Your task to perform on an android device: show emergency info Image 0: 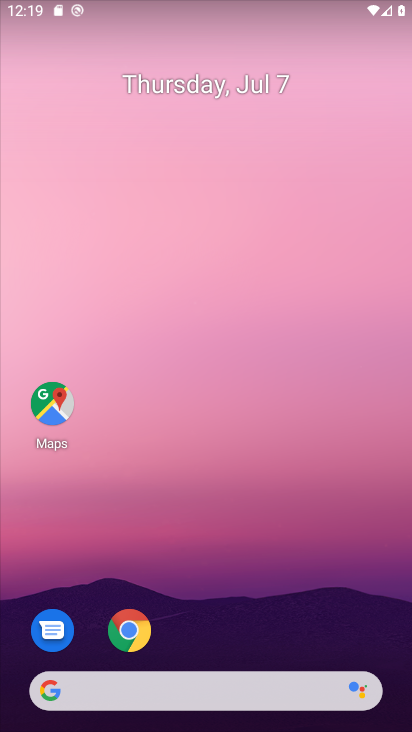
Step 0: drag from (254, 567) to (246, 279)
Your task to perform on an android device: show emergency info Image 1: 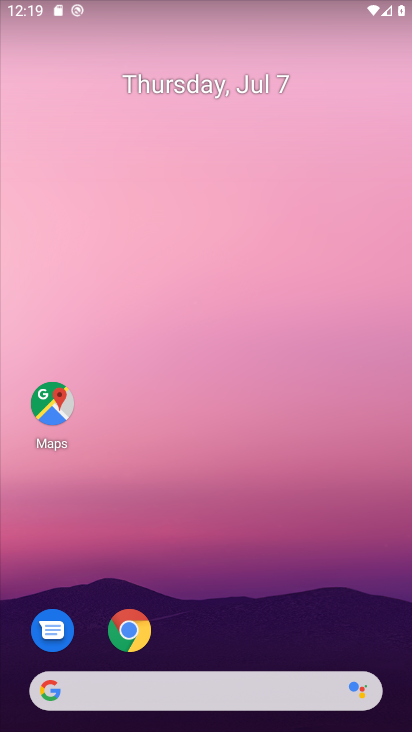
Step 1: drag from (236, 628) to (244, 255)
Your task to perform on an android device: show emergency info Image 2: 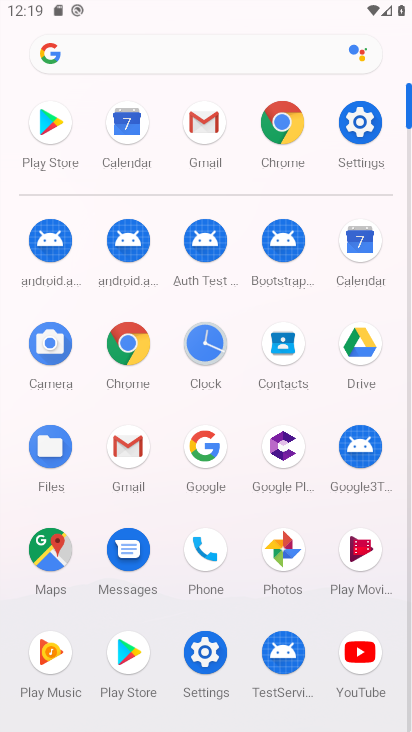
Step 2: click (350, 127)
Your task to perform on an android device: show emergency info Image 3: 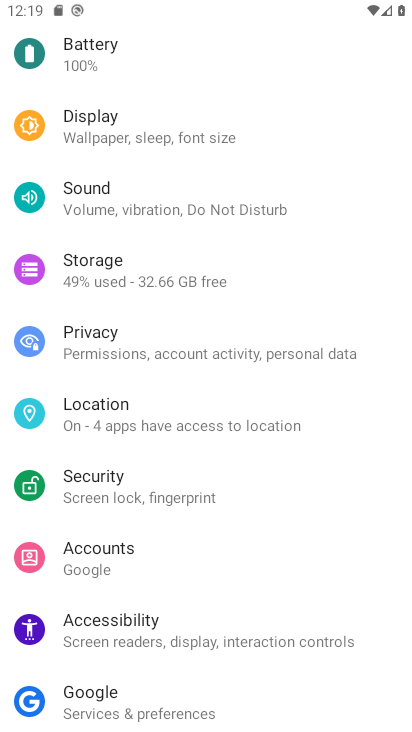
Step 3: drag from (201, 645) to (162, 220)
Your task to perform on an android device: show emergency info Image 4: 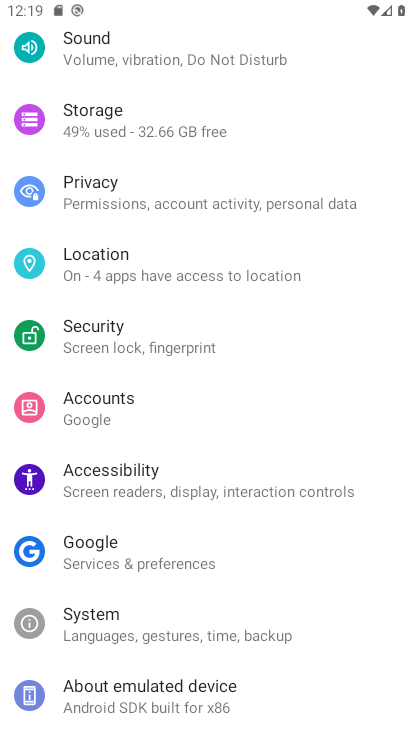
Step 4: click (161, 692)
Your task to perform on an android device: show emergency info Image 5: 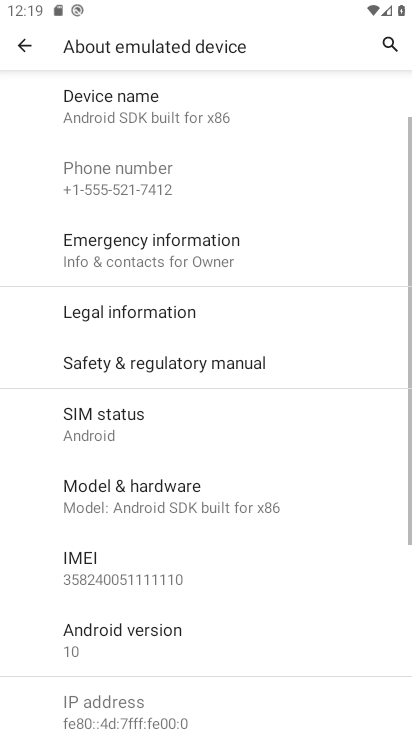
Step 5: click (166, 254)
Your task to perform on an android device: show emergency info Image 6: 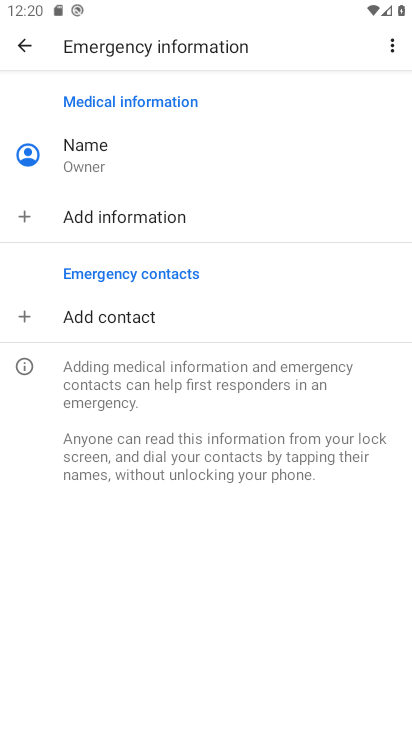
Step 6: task complete